Your task to perform on an android device: Open Youtube and go to the subscriptions tab Image 0: 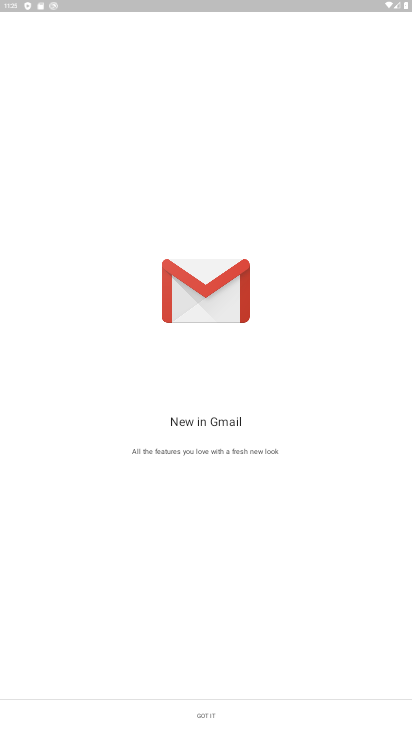
Step 0: press home button
Your task to perform on an android device: Open Youtube and go to the subscriptions tab Image 1: 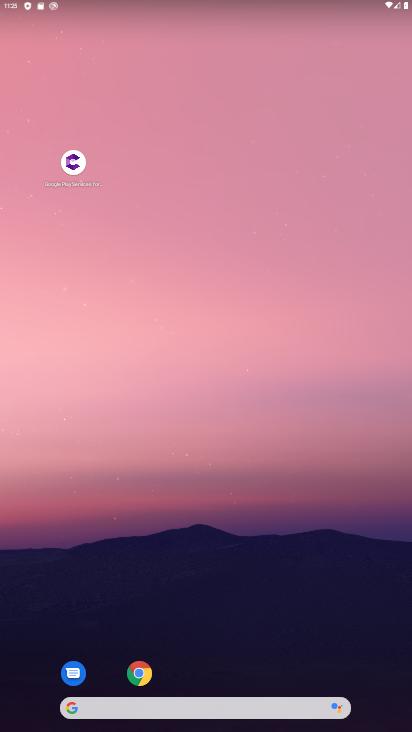
Step 1: drag from (270, 682) to (191, 18)
Your task to perform on an android device: Open Youtube and go to the subscriptions tab Image 2: 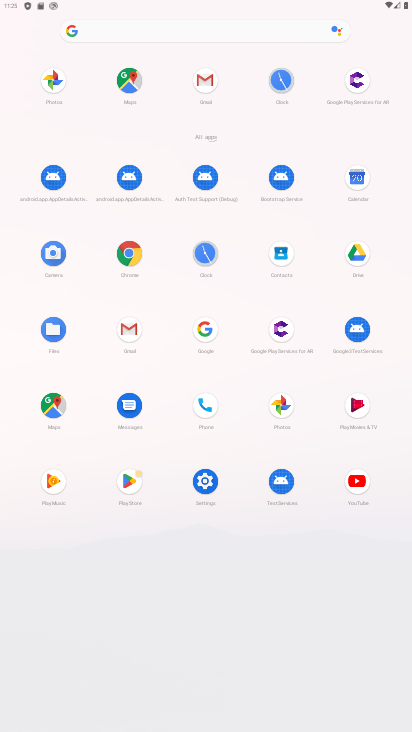
Step 2: click (196, 475)
Your task to perform on an android device: Open Youtube and go to the subscriptions tab Image 3: 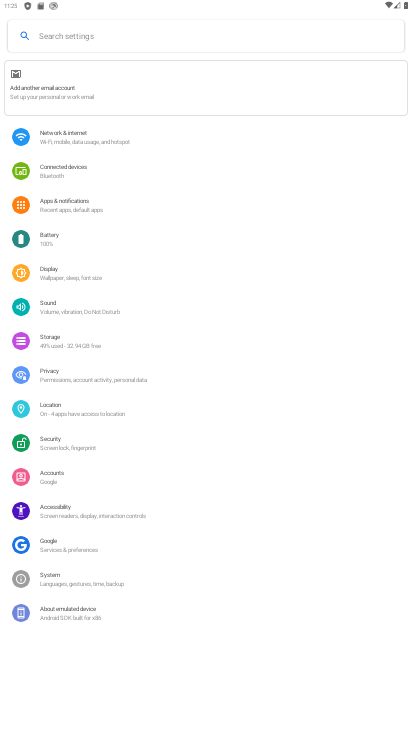
Step 3: click (50, 266)
Your task to perform on an android device: Open Youtube and go to the subscriptions tab Image 4: 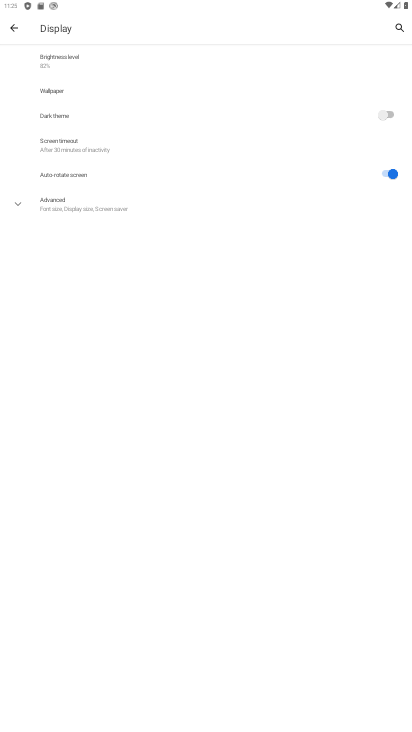
Step 4: click (47, 214)
Your task to perform on an android device: Open Youtube and go to the subscriptions tab Image 5: 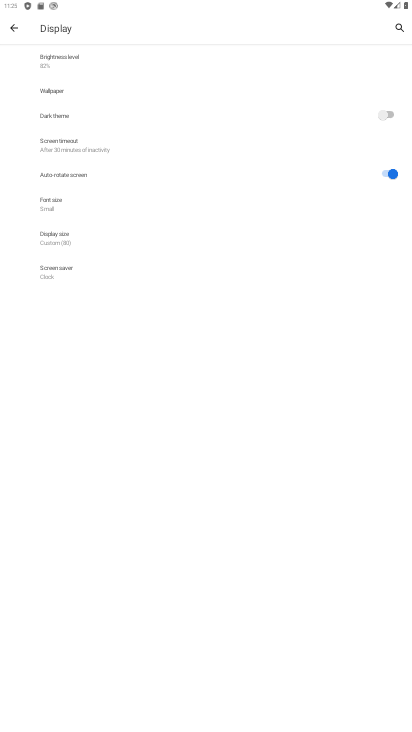
Step 5: click (52, 234)
Your task to perform on an android device: Open Youtube and go to the subscriptions tab Image 6: 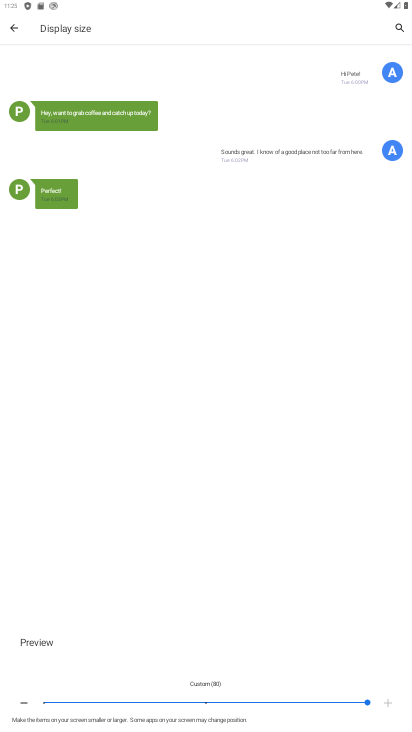
Step 6: click (41, 705)
Your task to perform on an android device: Open Youtube and go to the subscriptions tab Image 7: 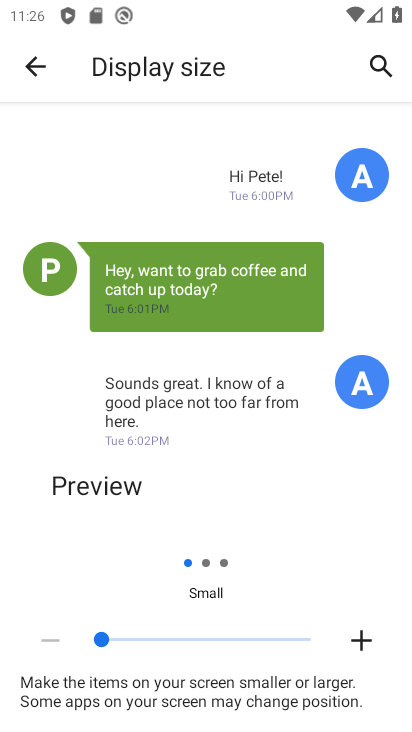
Step 7: click (185, 639)
Your task to perform on an android device: Open Youtube and go to the subscriptions tab Image 8: 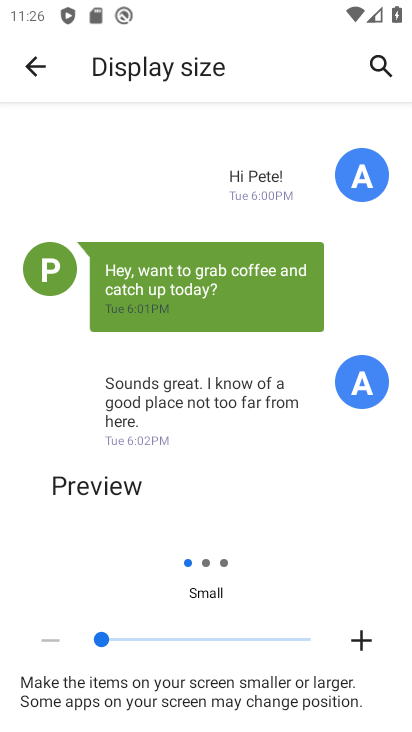
Step 8: click (185, 639)
Your task to perform on an android device: Open Youtube and go to the subscriptions tab Image 9: 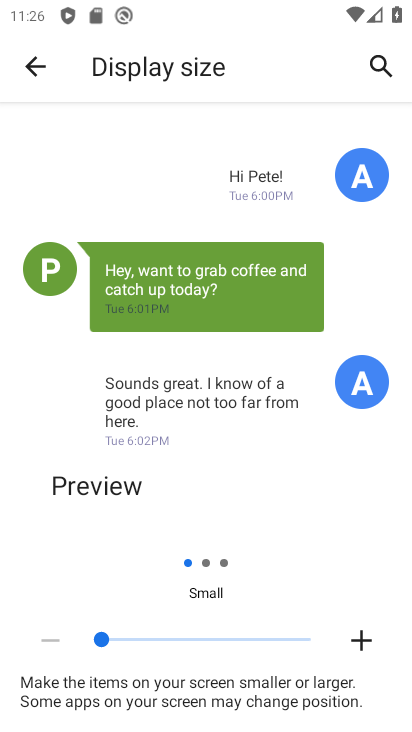
Step 9: click (185, 639)
Your task to perform on an android device: Open Youtube and go to the subscriptions tab Image 10: 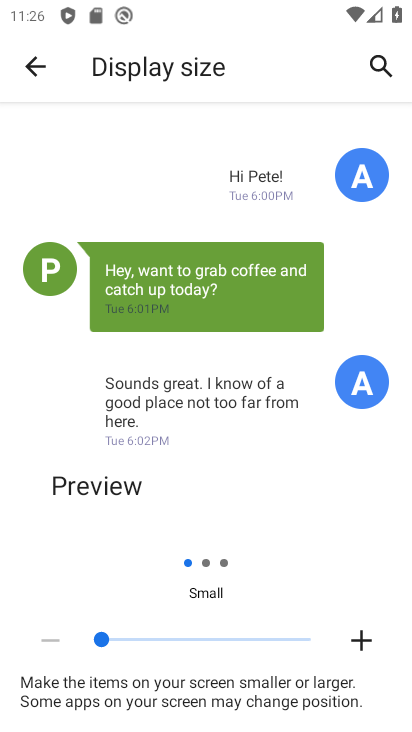
Step 10: click (185, 639)
Your task to perform on an android device: Open Youtube and go to the subscriptions tab Image 11: 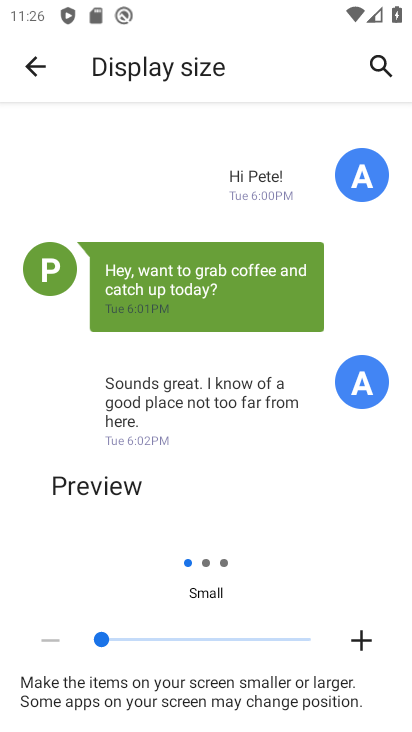
Step 11: click (185, 639)
Your task to perform on an android device: Open Youtube and go to the subscriptions tab Image 12: 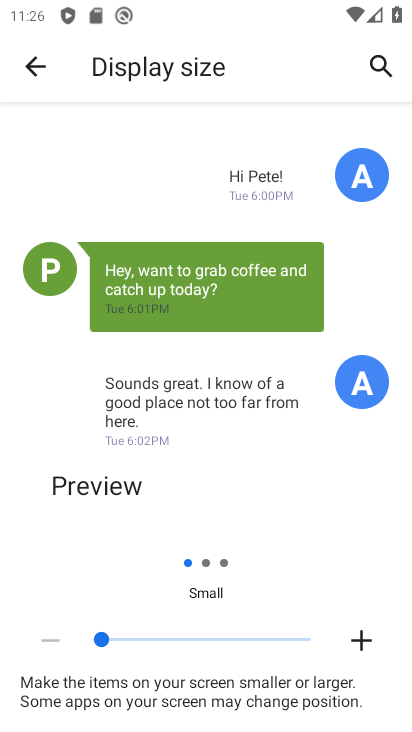
Step 12: click (185, 639)
Your task to perform on an android device: Open Youtube and go to the subscriptions tab Image 13: 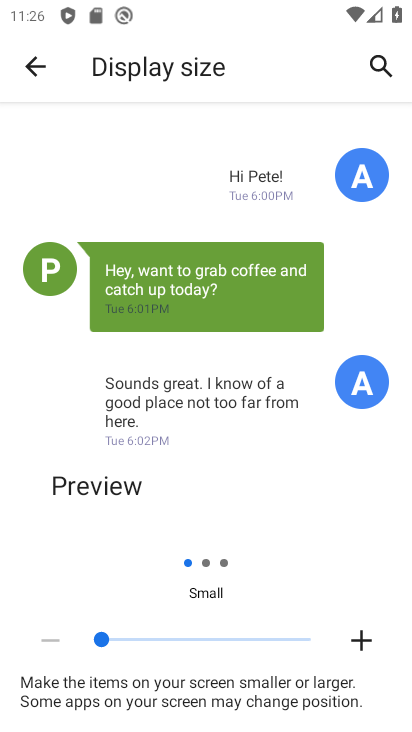
Step 13: click (185, 639)
Your task to perform on an android device: Open Youtube and go to the subscriptions tab Image 14: 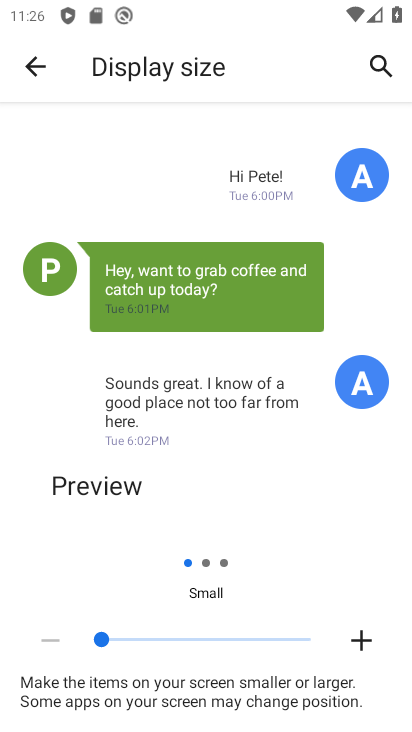
Step 14: click (204, 560)
Your task to perform on an android device: Open Youtube and go to the subscriptions tab Image 15: 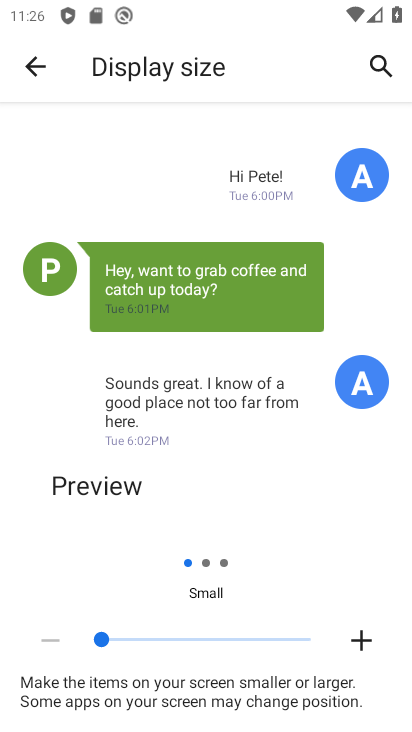
Step 15: click (361, 639)
Your task to perform on an android device: Open Youtube and go to the subscriptions tab Image 16: 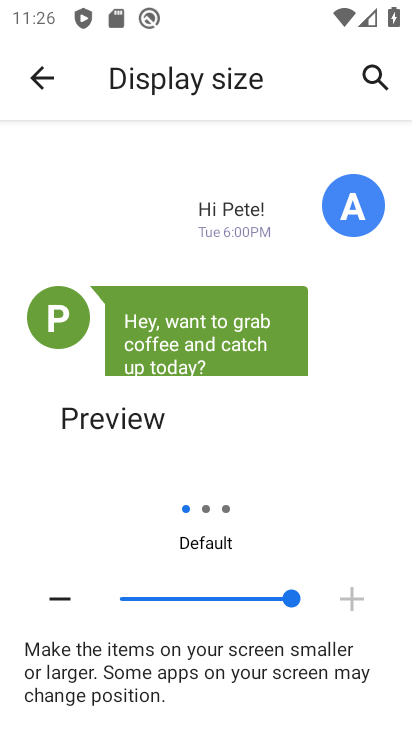
Step 16: task complete